Your task to perform on an android device: install app "Chime – Mobile Banking" Image 0: 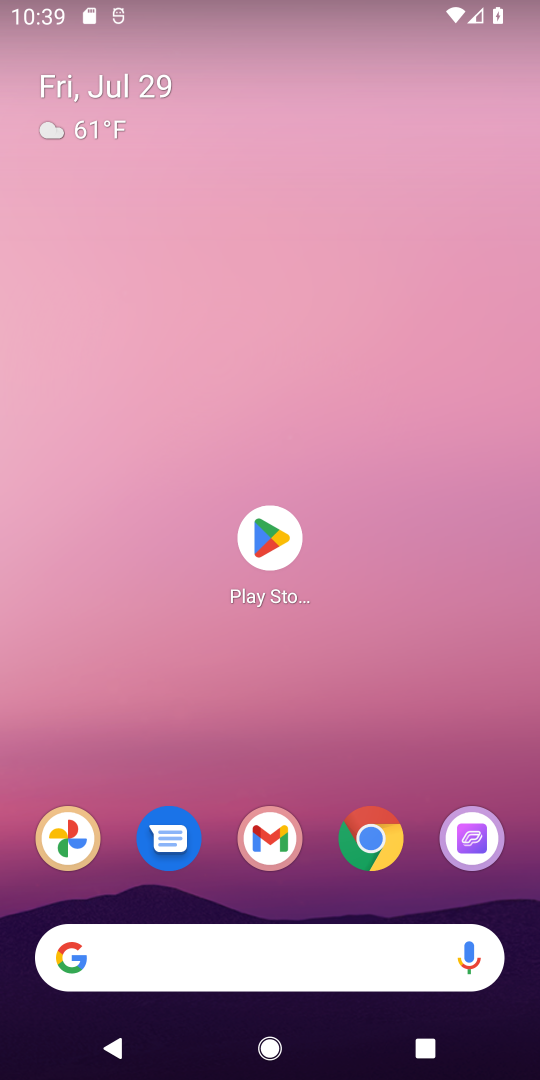
Step 0: press home button
Your task to perform on an android device: install app "Chime – Mobile Banking" Image 1: 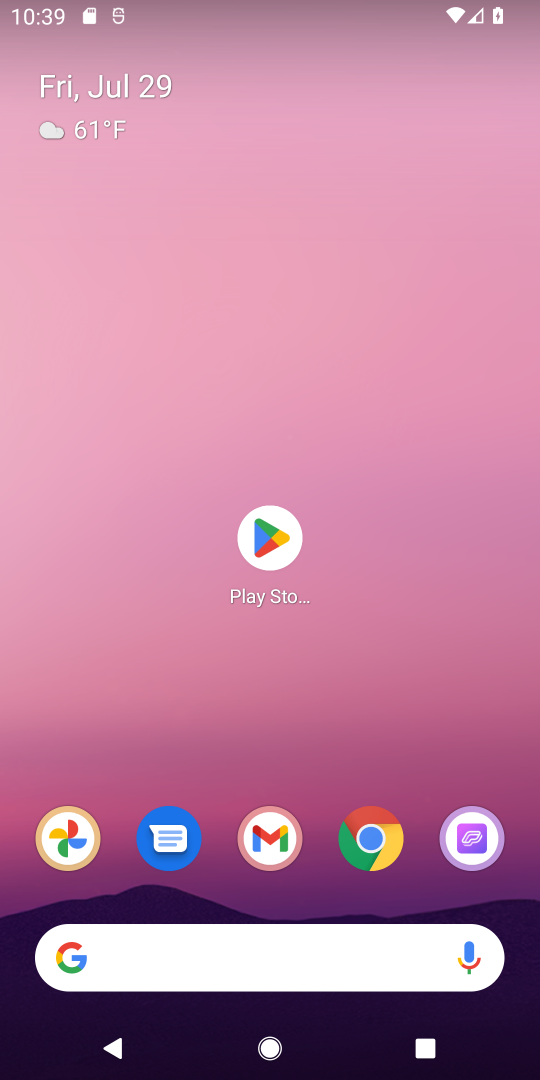
Step 1: type "Chime – Mobile Banking"
Your task to perform on an android device: install app "Chime – Mobile Banking" Image 2: 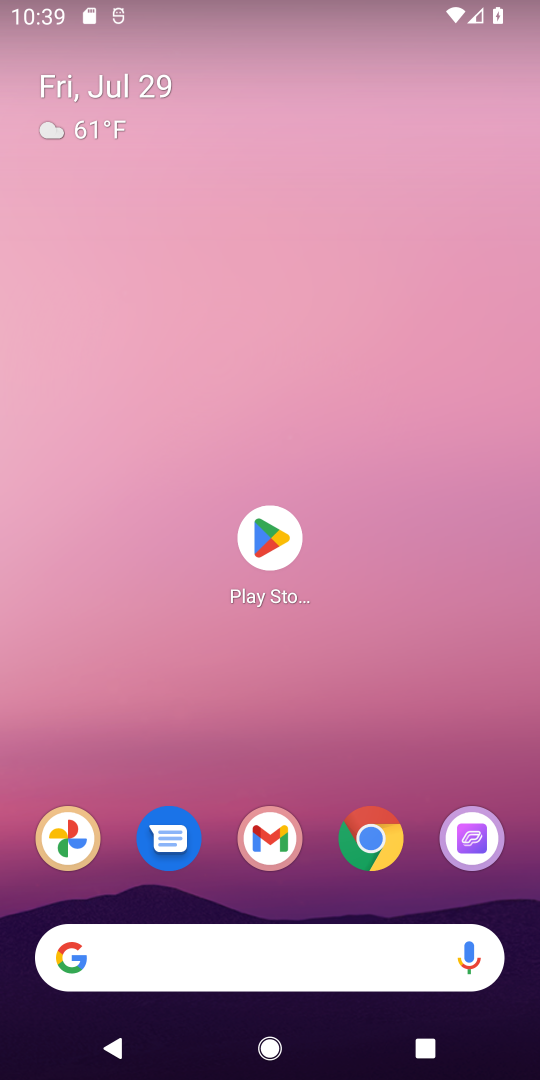
Step 2: click (261, 544)
Your task to perform on an android device: install app "Chime – Mobile Banking" Image 3: 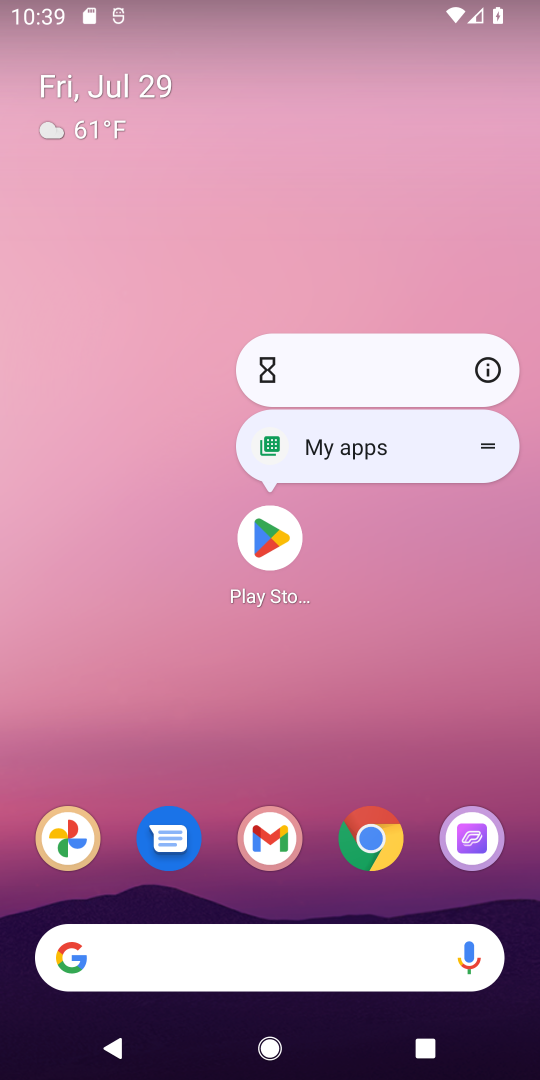
Step 3: click (261, 544)
Your task to perform on an android device: install app "Chime – Mobile Banking" Image 4: 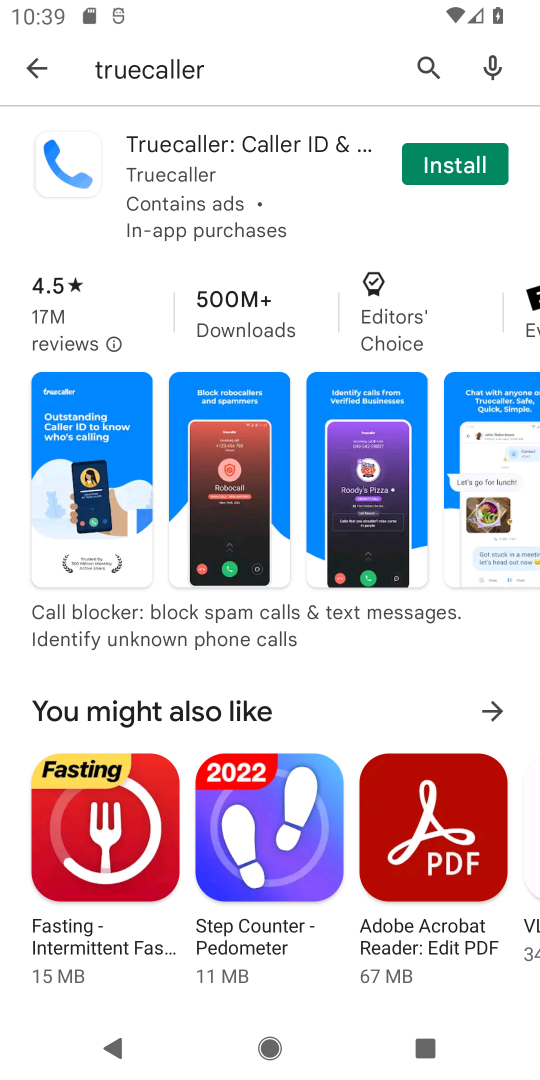
Step 4: click (421, 66)
Your task to perform on an android device: install app "Chime – Mobile Banking" Image 5: 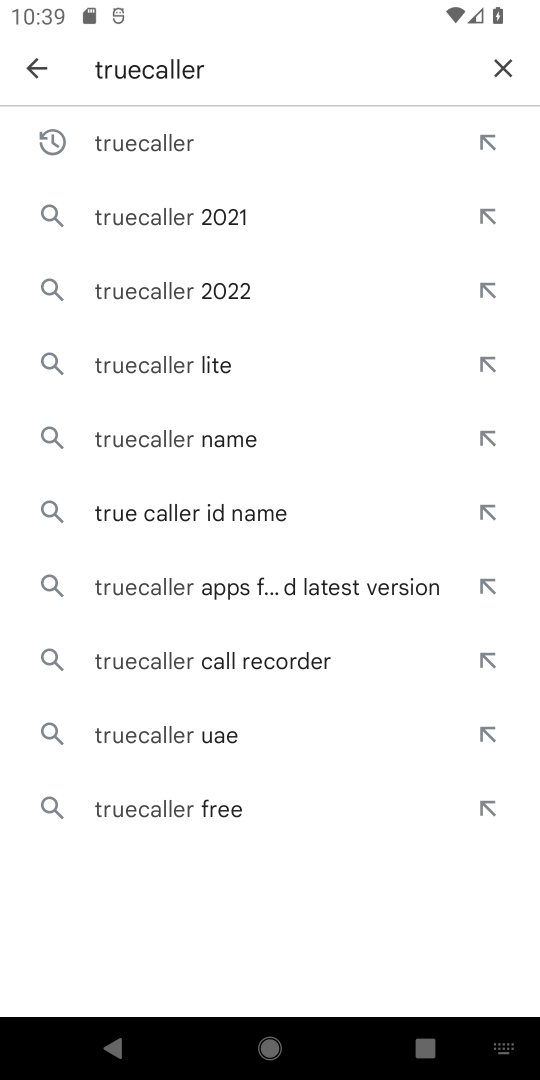
Step 5: click (494, 64)
Your task to perform on an android device: install app "Chime – Mobile Banking" Image 6: 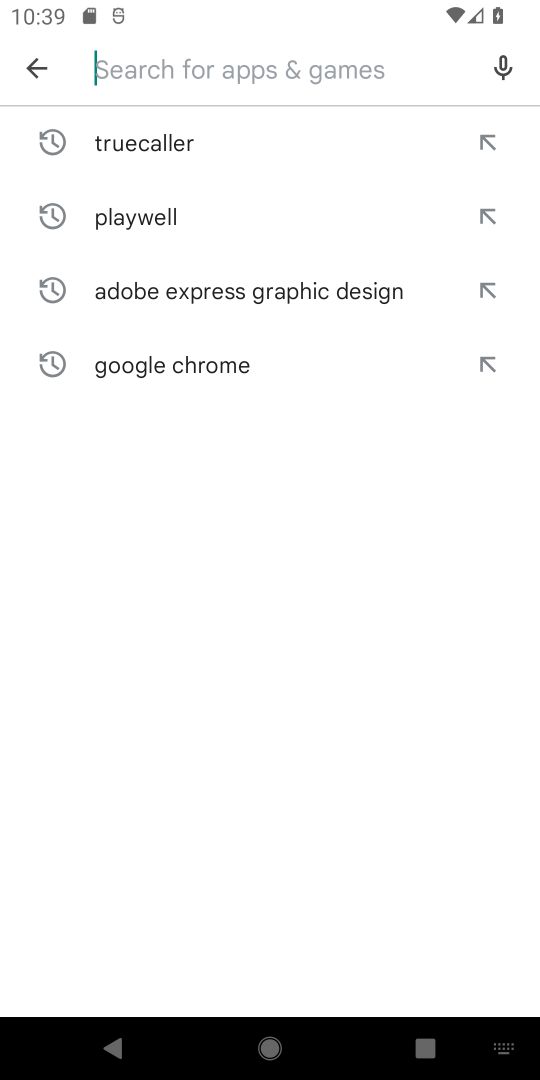
Step 6: type "Chime – Mobile Banking"
Your task to perform on an android device: install app "Chime – Mobile Banking" Image 7: 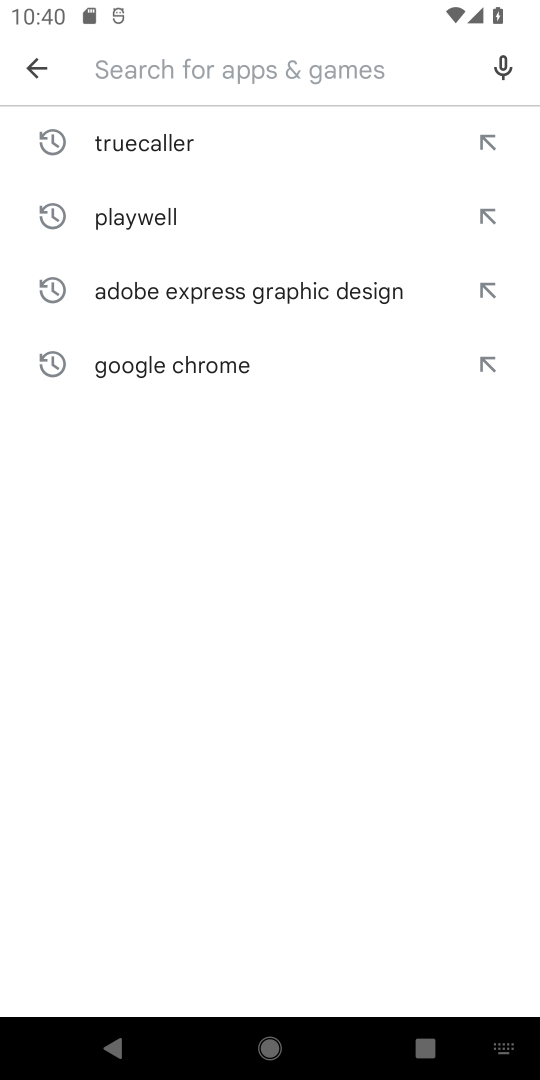
Step 7: type "chime- mobile banking"
Your task to perform on an android device: install app "Chime – Mobile Banking" Image 8: 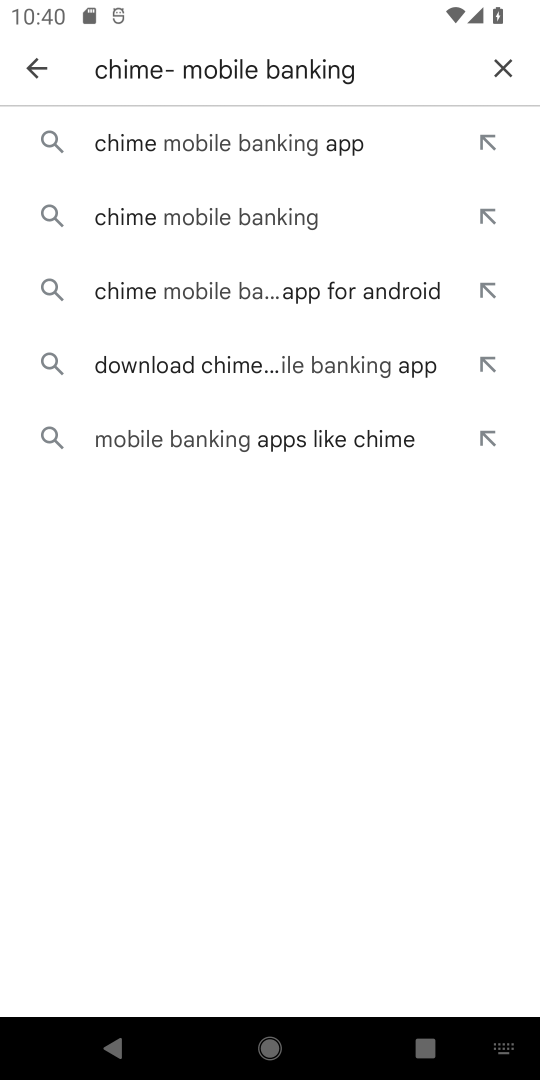
Step 8: click (319, 149)
Your task to perform on an android device: install app "Chime – Mobile Banking" Image 9: 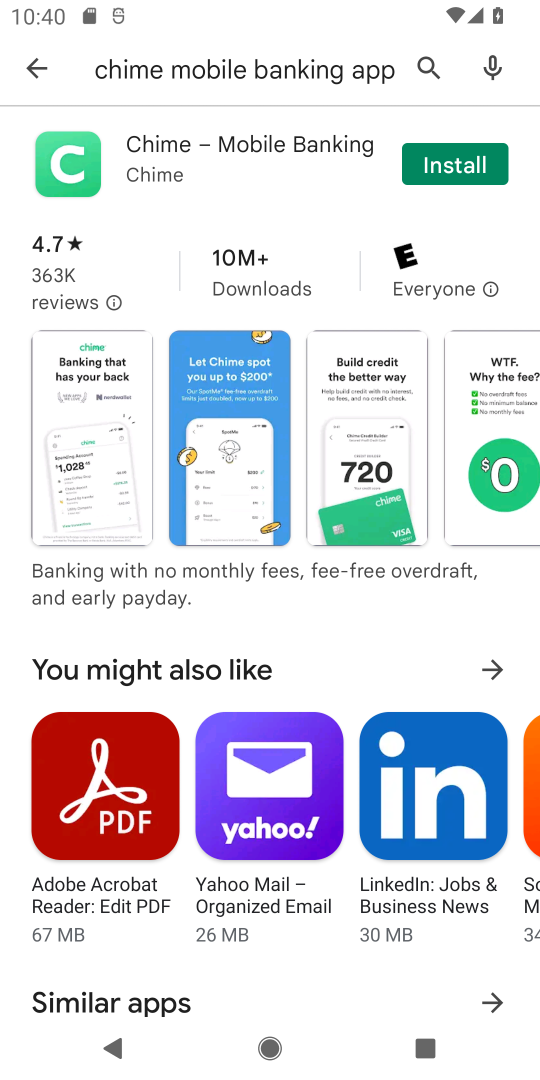
Step 9: click (445, 179)
Your task to perform on an android device: install app "Chime – Mobile Banking" Image 10: 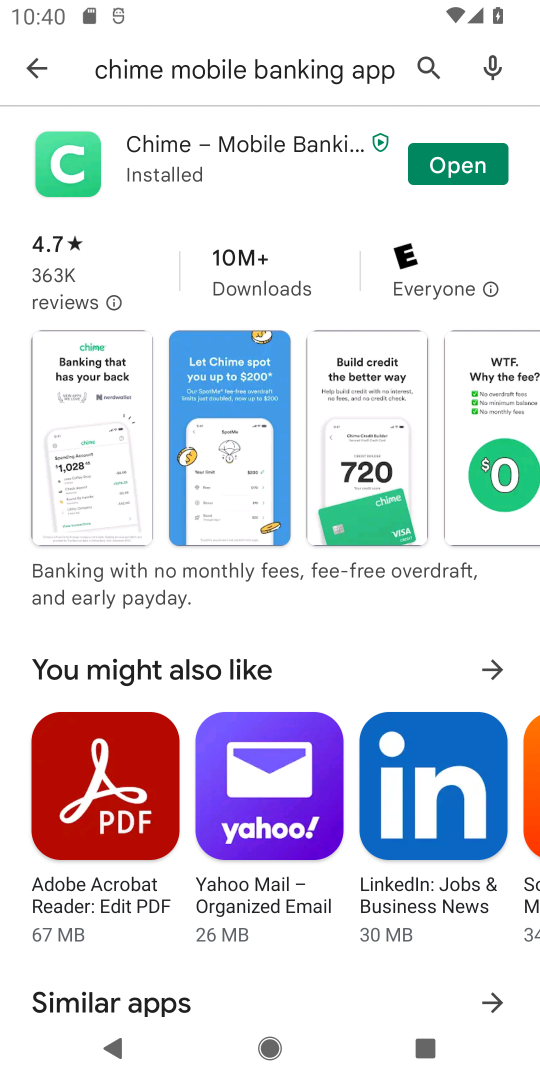
Step 10: task complete